Your task to perform on an android device: Open internet settings Image 0: 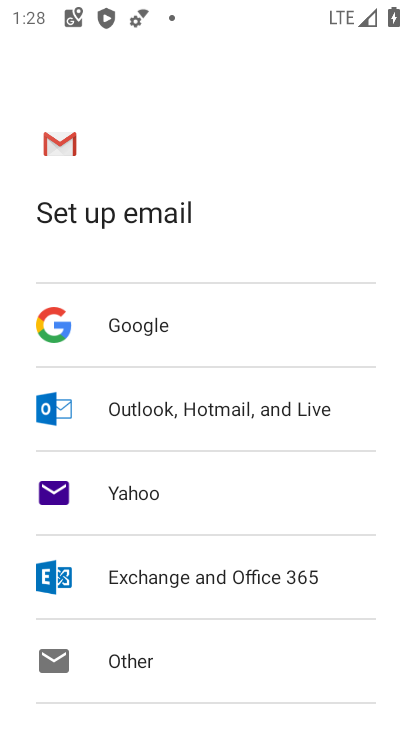
Step 0: press home button
Your task to perform on an android device: Open internet settings Image 1: 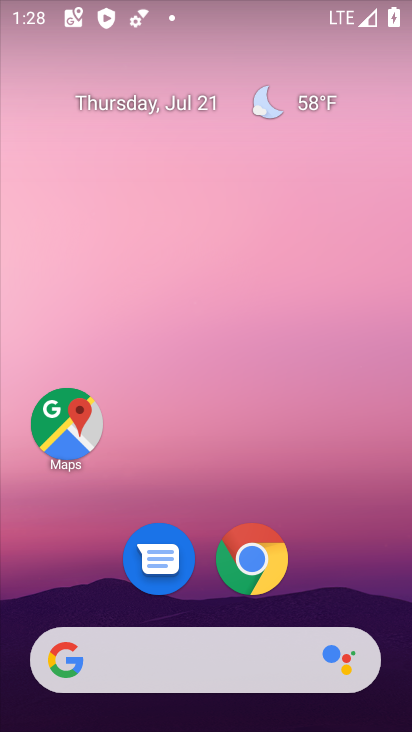
Step 1: drag from (365, 545) to (365, 89)
Your task to perform on an android device: Open internet settings Image 2: 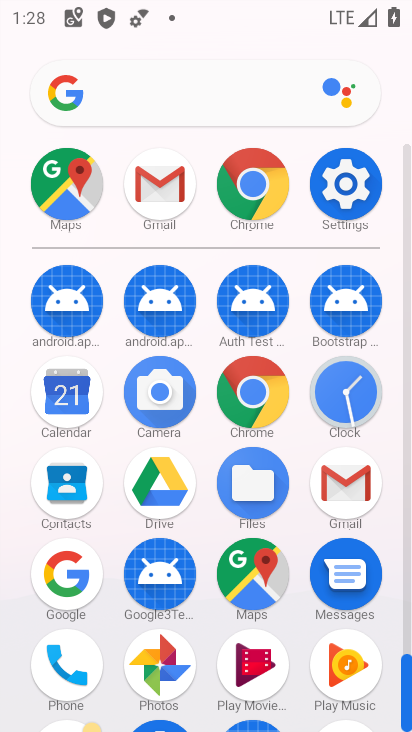
Step 2: click (347, 186)
Your task to perform on an android device: Open internet settings Image 3: 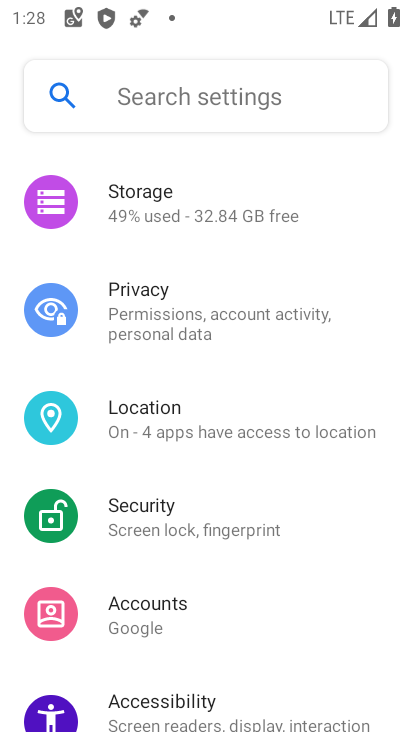
Step 3: drag from (312, 595) to (315, 530)
Your task to perform on an android device: Open internet settings Image 4: 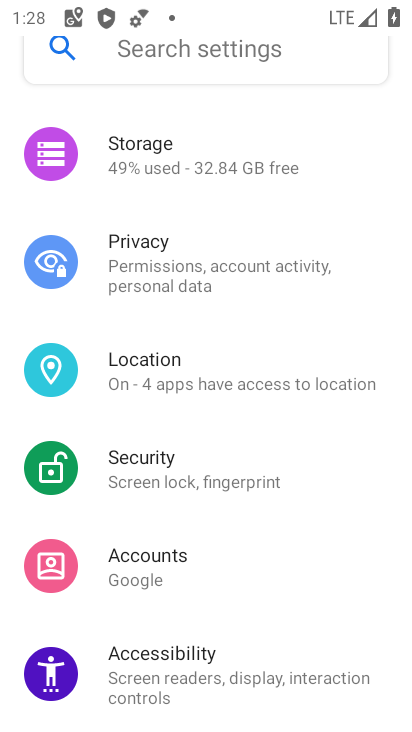
Step 4: drag from (341, 605) to (343, 522)
Your task to perform on an android device: Open internet settings Image 5: 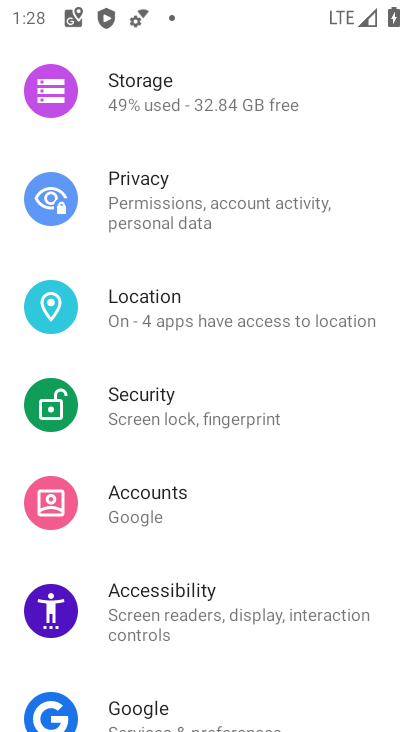
Step 5: drag from (348, 657) to (354, 577)
Your task to perform on an android device: Open internet settings Image 6: 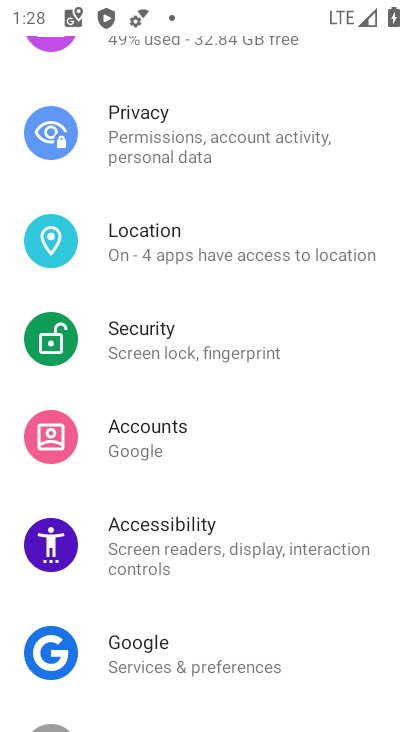
Step 6: drag from (346, 664) to (347, 579)
Your task to perform on an android device: Open internet settings Image 7: 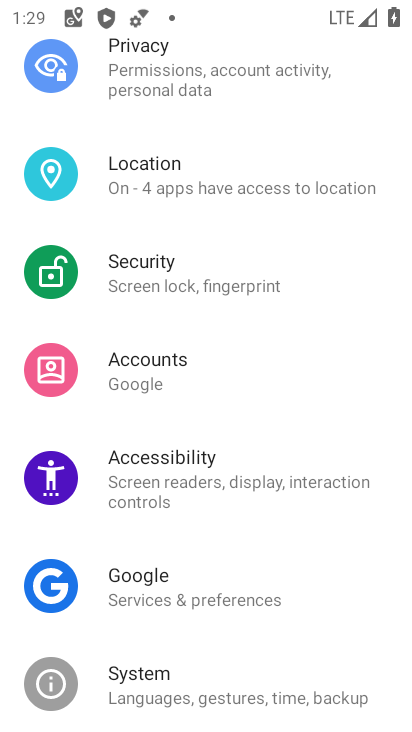
Step 7: drag from (339, 652) to (338, 554)
Your task to perform on an android device: Open internet settings Image 8: 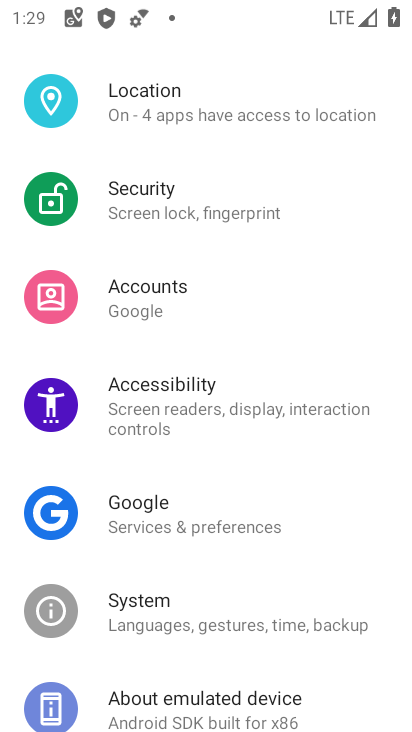
Step 8: drag from (344, 471) to (355, 540)
Your task to perform on an android device: Open internet settings Image 9: 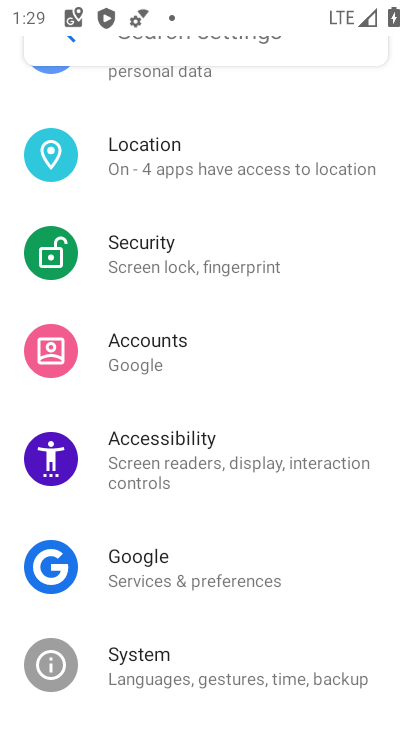
Step 9: drag from (357, 512) to (359, 552)
Your task to perform on an android device: Open internet settings Image 10: 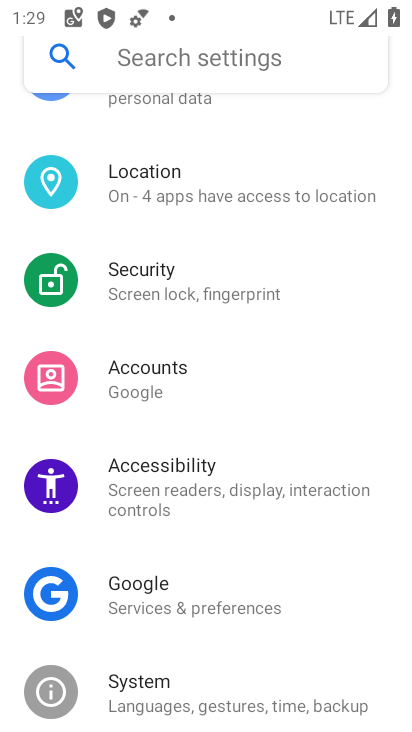
Step 10: drag from (351, 425) to (348, 513)
Your task to perform on an android device: Open internet settings Image 11: 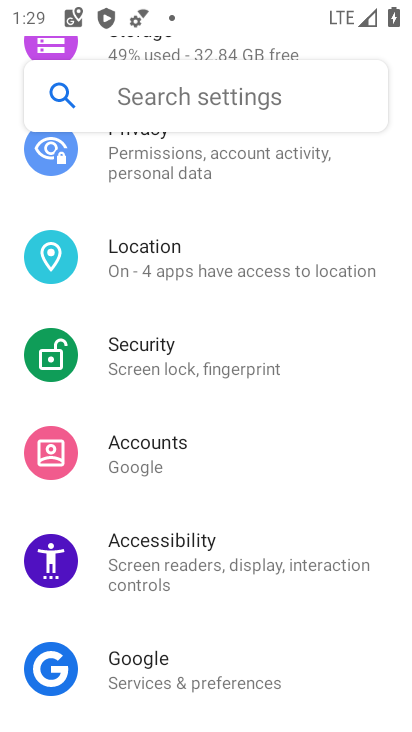
Step 11: drag from (336, 411) to (344, 469)
Your task to perform on an android device: Open internet settings Image 12: 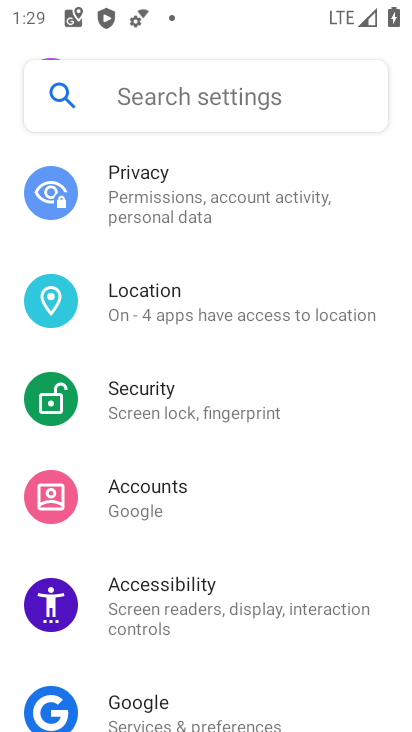
Step 12: drag from (337, 411) to (347, 482)
Your task to perform on an android device: Open internet settings Image 13: 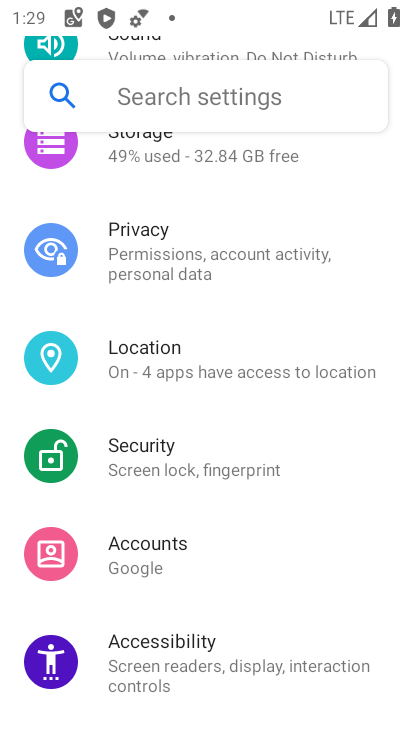
Step 13: drag from (342, 424) to (349, 483)
Your task to perform on an android device: Open internet settings Image 14: 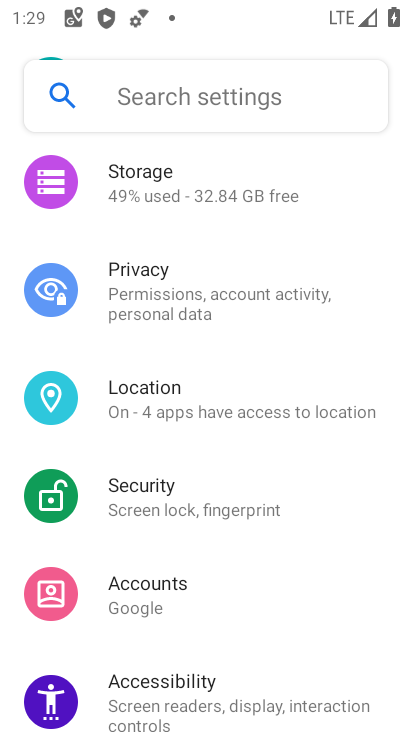
Step 14: drag from (345, 405) to (349, 499)
Your task to perform on an android device: Open internet settings Image 15: 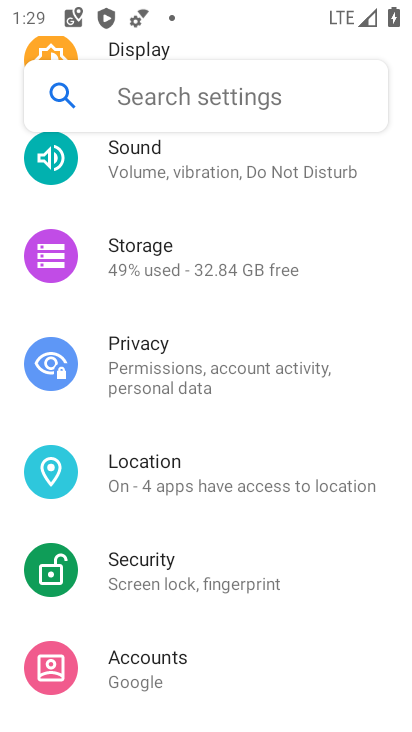
Step 15: drag from (342, 410) to (341, 482)
Your task to perform on an android device: Open internet settings Image 16: 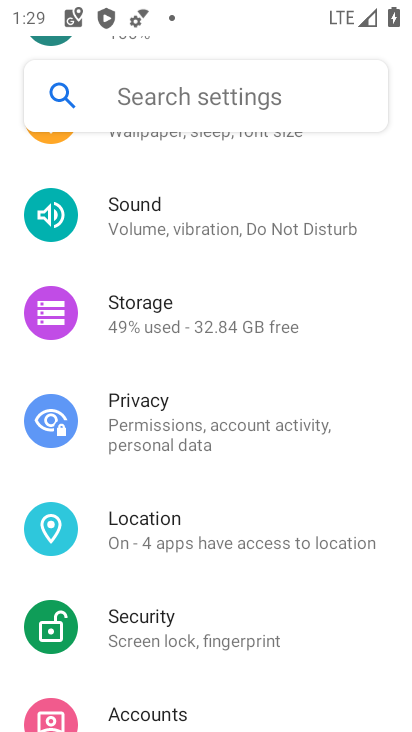
Step 16: drag from (351, 396) to (352, 462)
Your task to perform on an android device: Open internet settings Image 17: 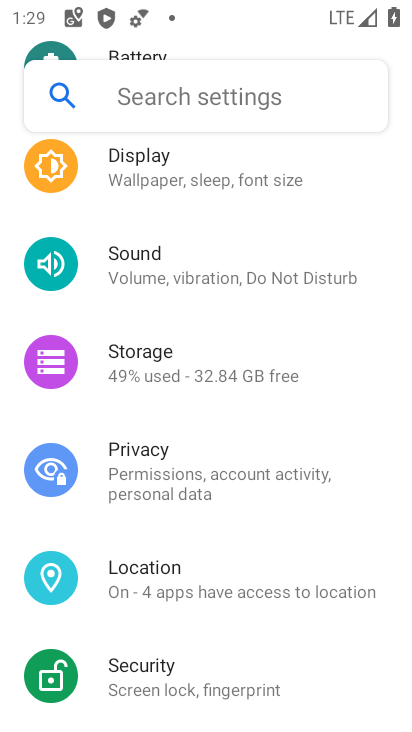
Step 17: drag from (327, 397) to (330, 462)
Your task to perform on an android device: Open internet settings Image 18: 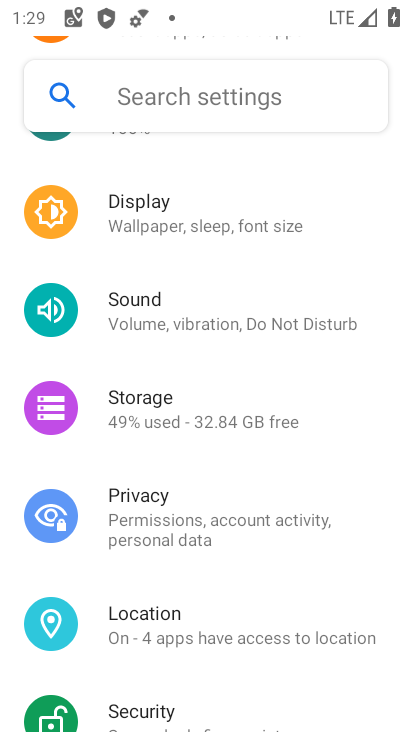
Step 18: drag from (330, 413) to (331, 500)
Your task to perform on an android device: Open internet settings Image 19: 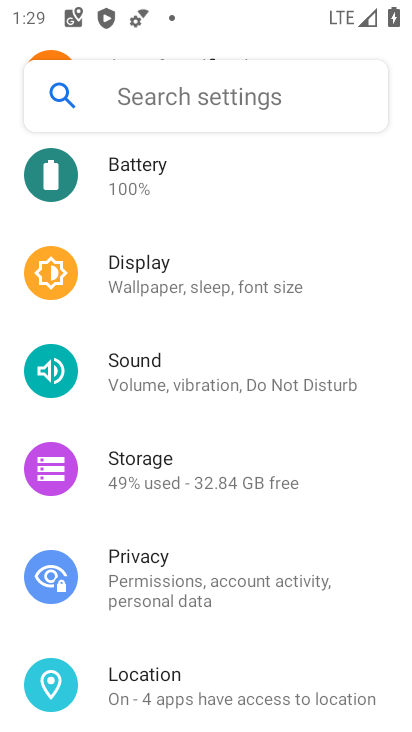
Step 19: drag from (319, 419) to (330, 504)
Your task to perform on an android device: Open internet settings Image 20: 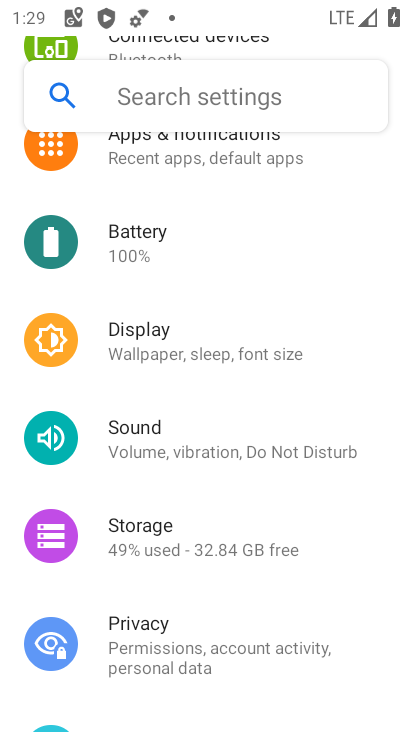
Step 20: drag from (335, 401) to (350, 491)
Your task to perform on an android device: Open internet settings Image 21: 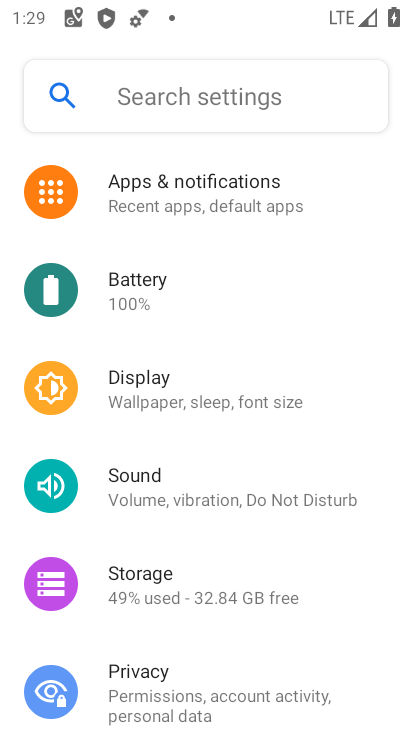
Step 21: drag from (368, 398) to (371, 482)
Your task to perform on an android device: Open internet settings Image 22: 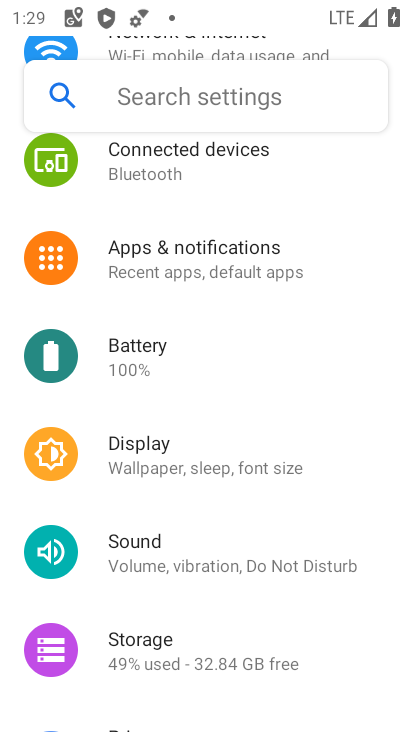
Step 22: drag from (358, 410) to (367, 473)
Your task to perform on an android device: Open internet settings Image 23: 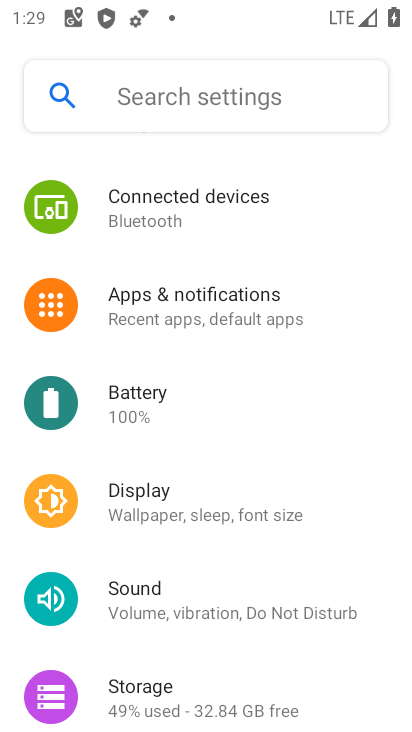
Step 23: drag from (374, 416) to (366, 486)
Your task to perform on an android device: Open internet settings Image 24: 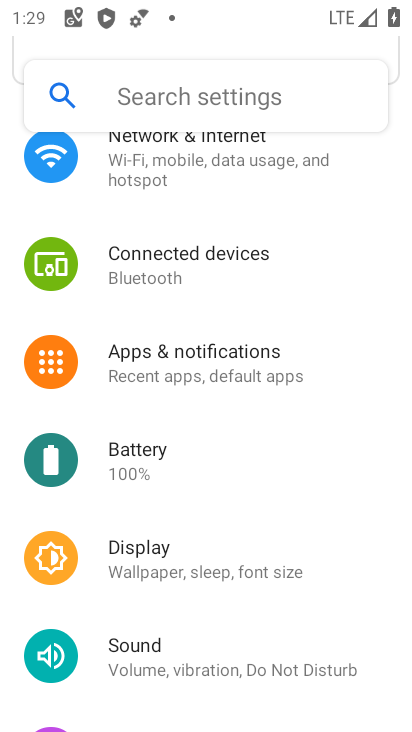
Step 24: drag from (358, 417) to (347, 498)
Your task to perform on an android device: Open internet settings Image 25: 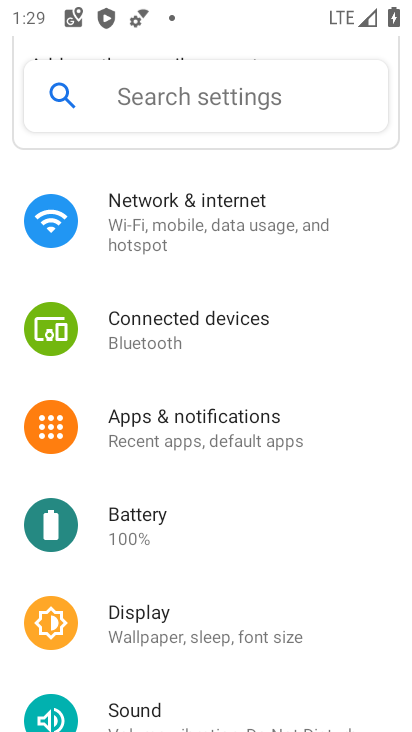
Step 25: drag from (331, 400) to (328, 551)
Your task to perform on an android device: Open internet settings Image 26: 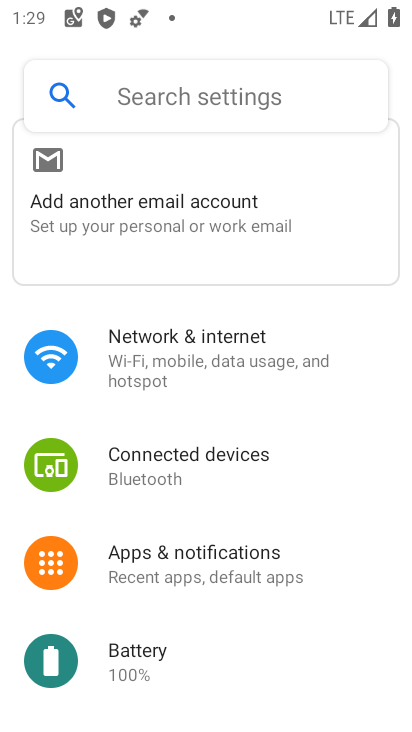
Step 26: drag from (348, 409) to (334, 507)
Your task to perform on an android device: Open internet settings Image 27: 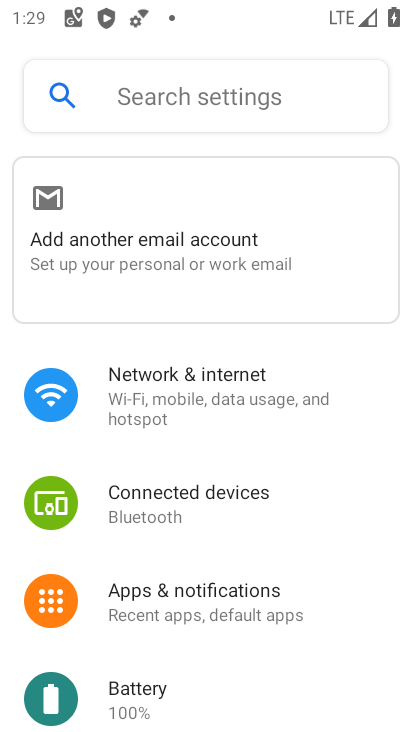
Step 27: click (339, 370)
Your task to perform on an android device: Open internet settings Image 28: 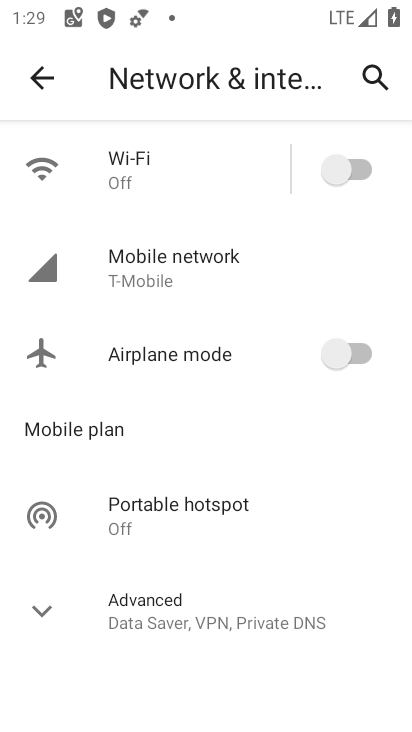
Step 28: task complete